Your task to perform on an android device: open app "Move to iOS" Image 0: 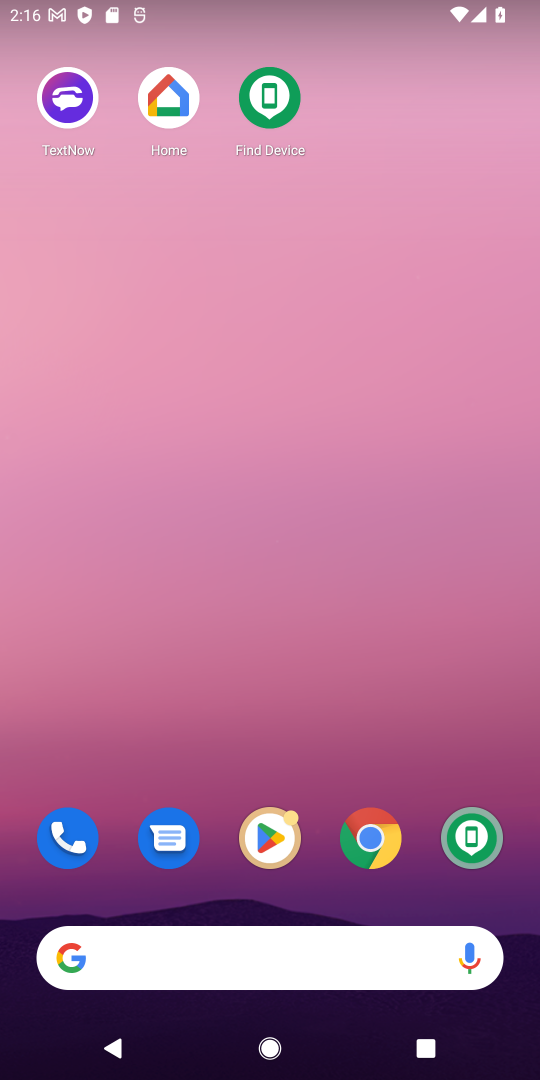
Step 0: click (261, 830)
Your task to perform on an android device: open app "Move to iOS" Image 1: 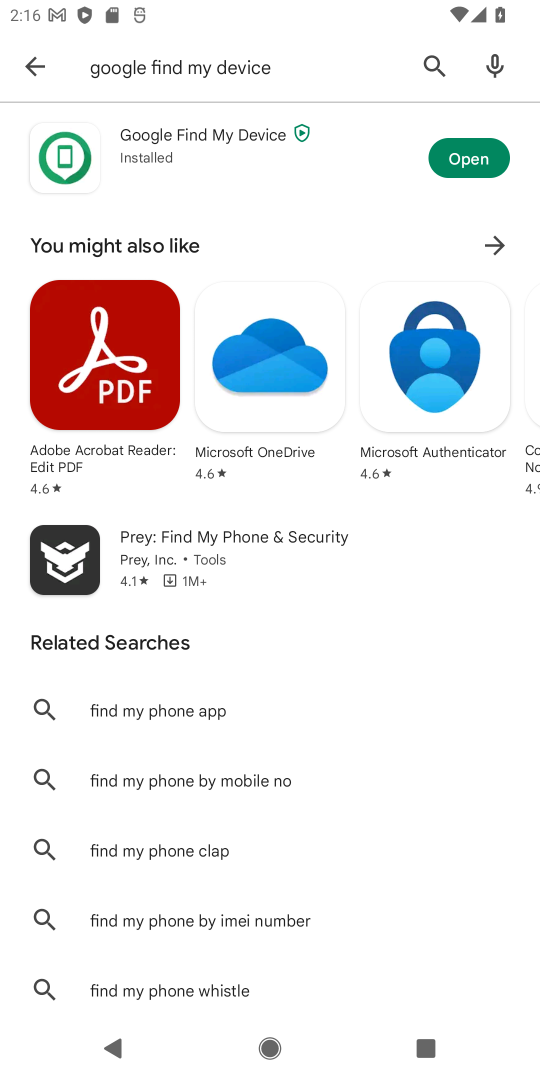
Step 1: click (27, 67)
Your task to perform on an android device: open app "Move to iOS" Image 2: 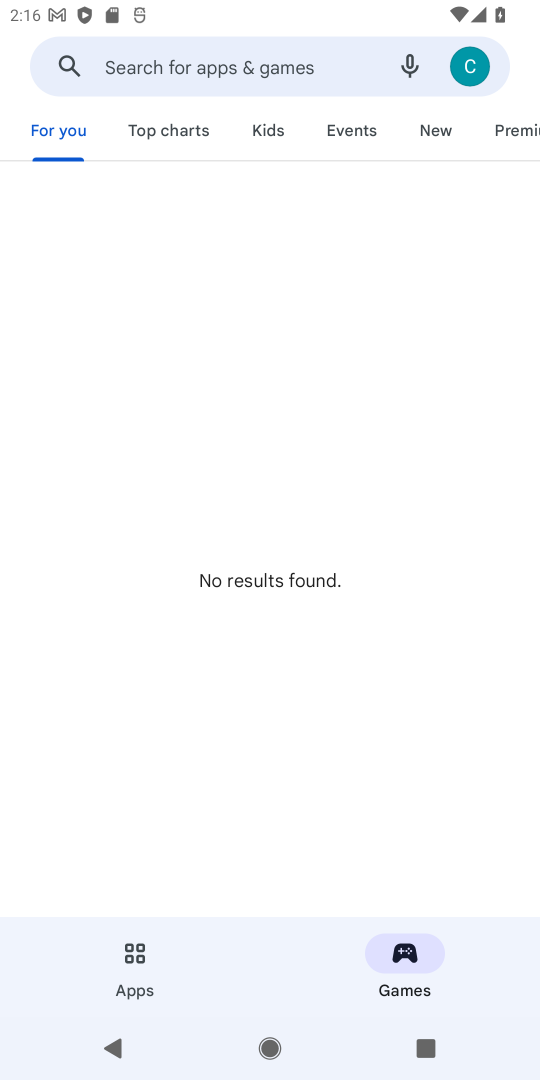
Step 2: click (191, 57)
Your task to perform on an android device: open app "Move to iOS" Image 3: 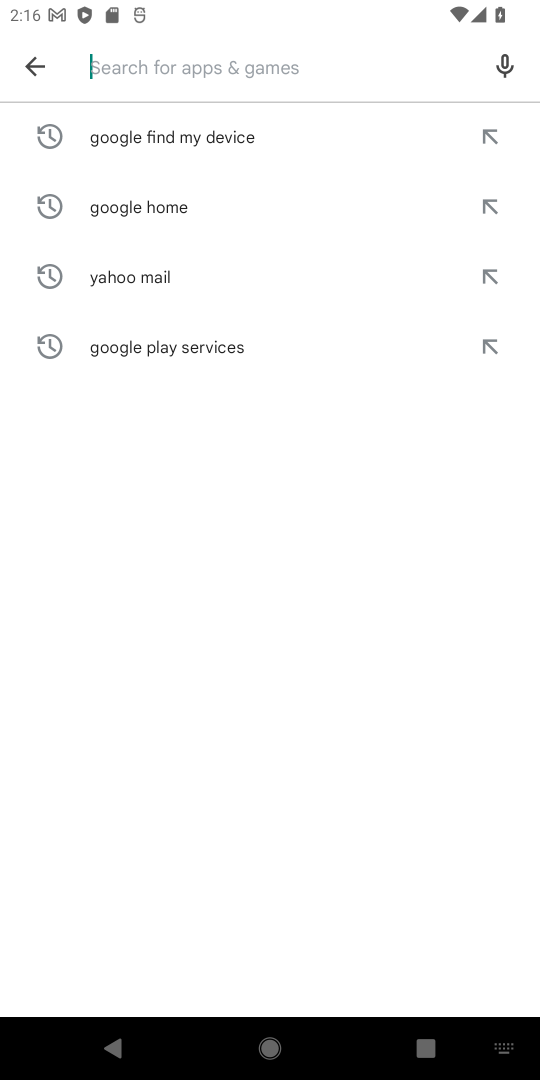
Step 3: type "Move to iOS"
Your task to perform on an android device: open app "Move to iOS" Image 4: 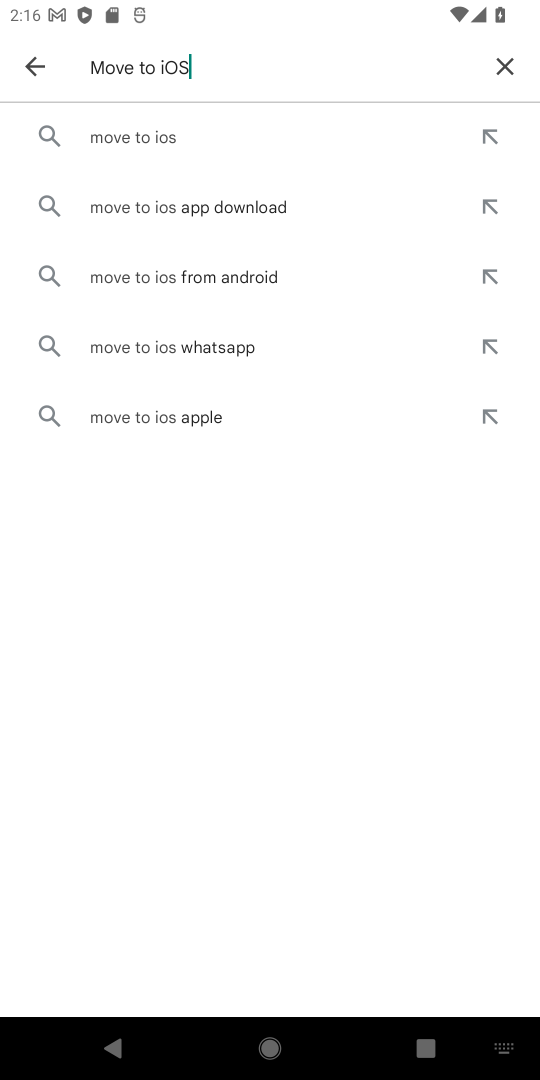
Step 4: click (145, 140)
Your task to perform on an android device: open app "Move to iOS" Image 5: 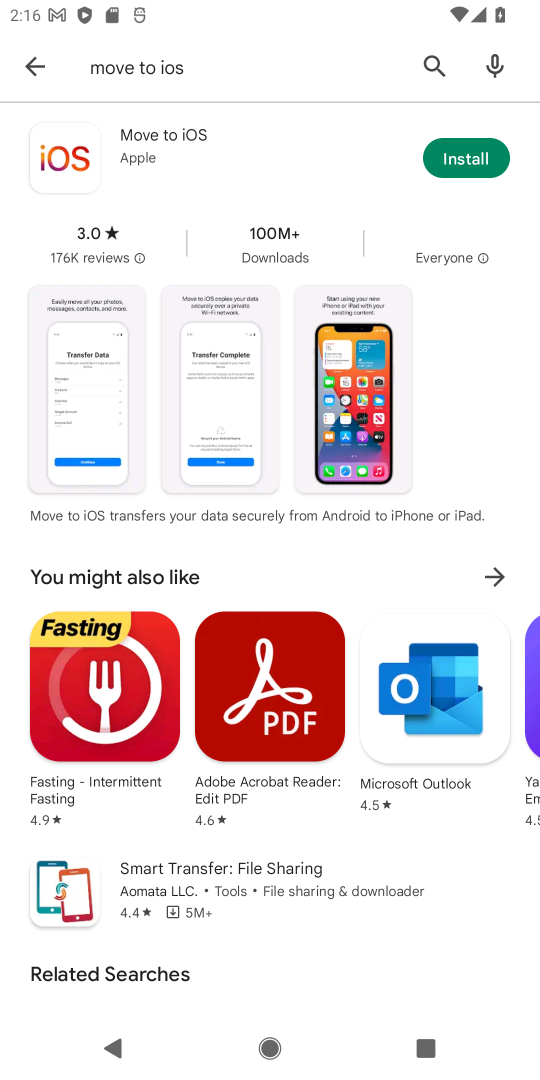
Step 5: click (459, 150)
Your task to perform on an android device: open app "Move to iOS" Image 6: 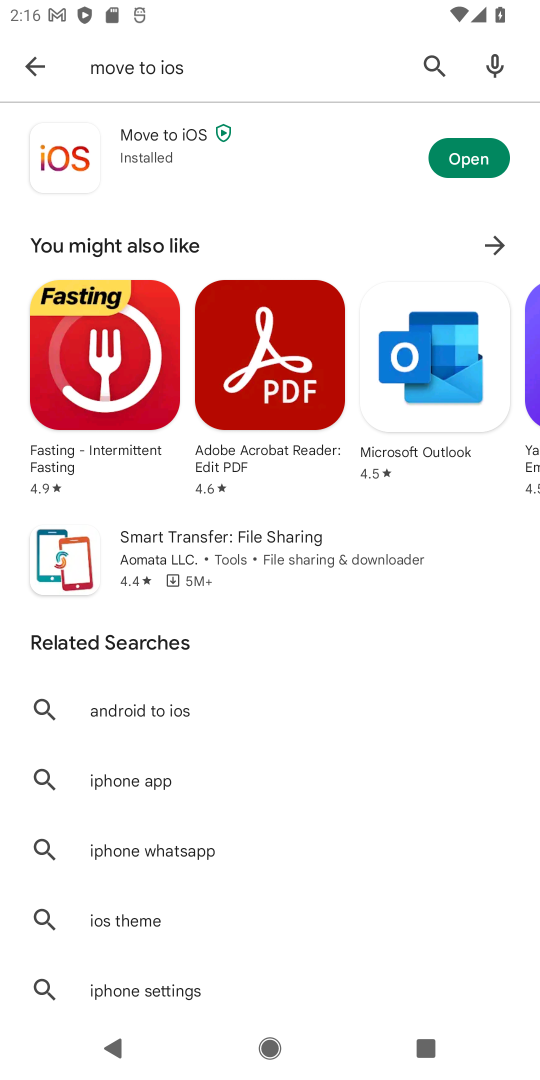
Step 6: click (491, 150)
Your task to perform on an android device: open app "Move to iOS" Image 7: 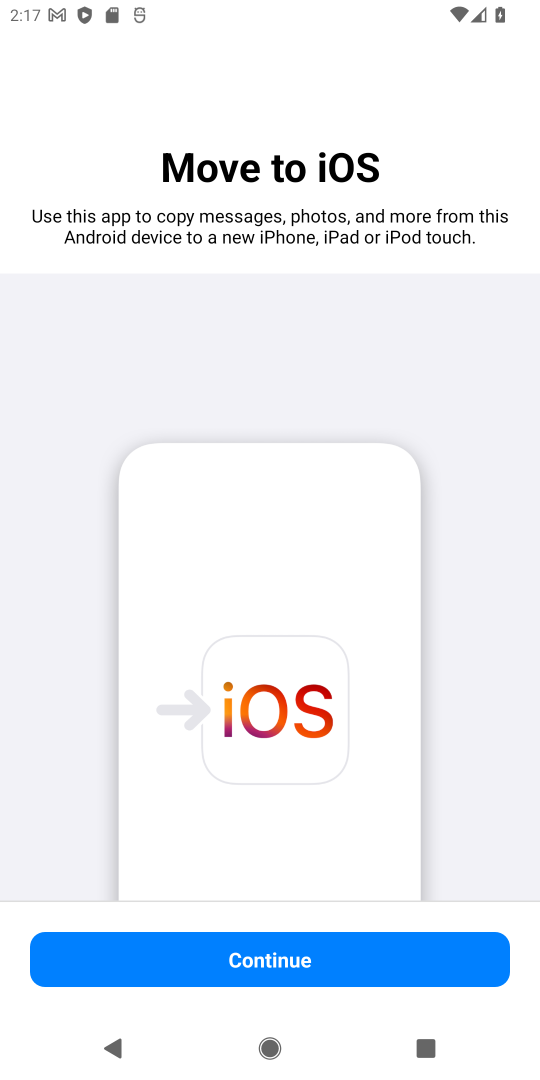
Step 7: click (266, 954)
Your task to perform on an android device: open app "Move to iOS" Image 8: 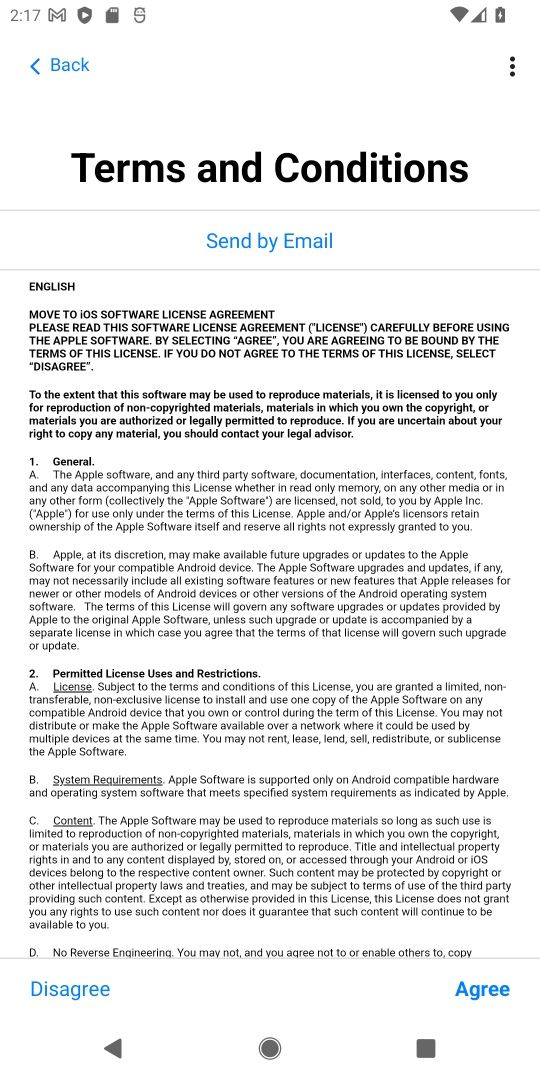
Step 8: click (476, 982)
Your task to perform on an android device: open app "Move to iOS" Image 9: 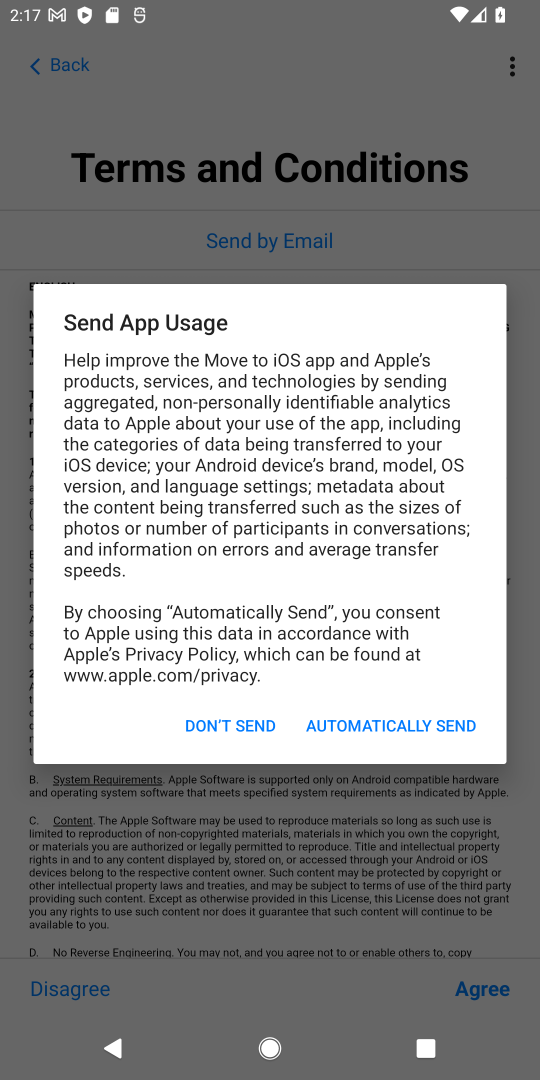
Step 9: task complete